Your task to perform on an android device: open a bookmark in the chrome app Image 0: 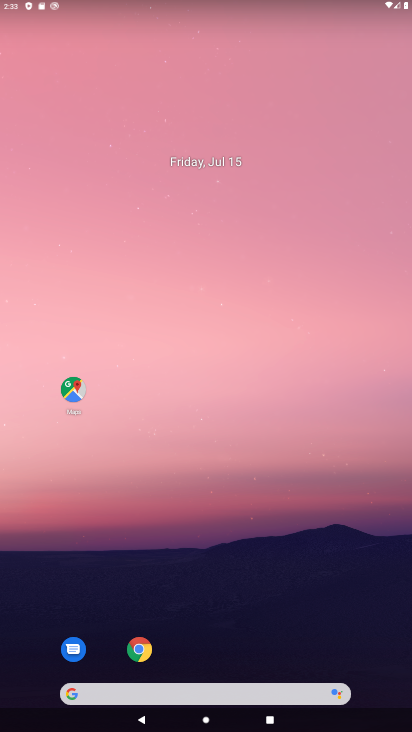
Step 0: drag from (198, 721) to (216, 317)
Your task to perform on an android device: open a bookmark in the chrome app Image 1: 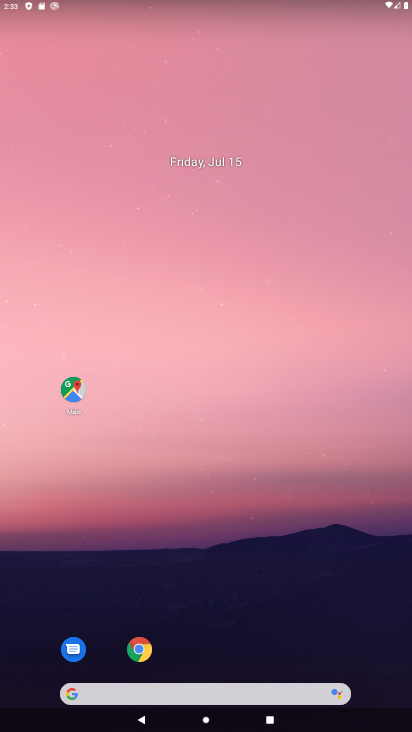
Step 1: click (140, 649)
Your task to perform on an android device: open a bookmark in the chrome app Image 2: 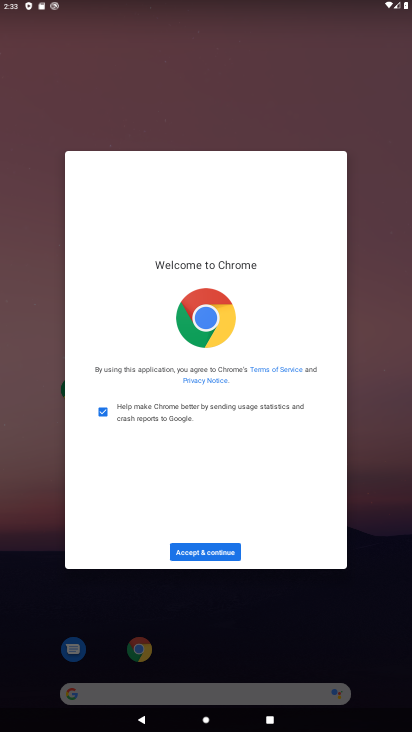
Step 2: click (207, 553)
Your task to perform on an android device: open a bookmark in the chrome app Image 3: 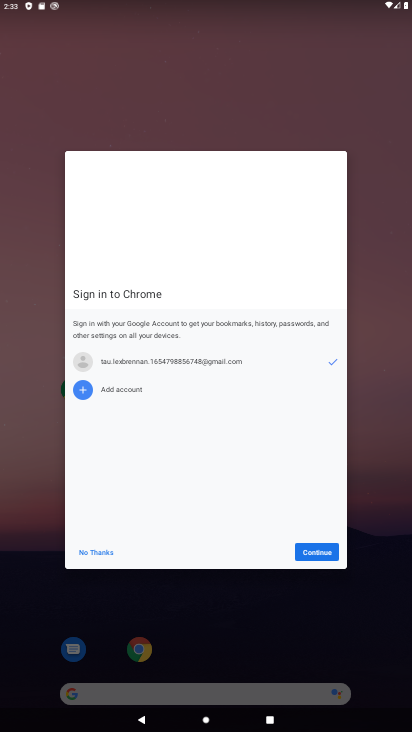
Step 3: click (319, 548)
Your task to perform on an android device: open a bookmark in the chrome app Image 4: 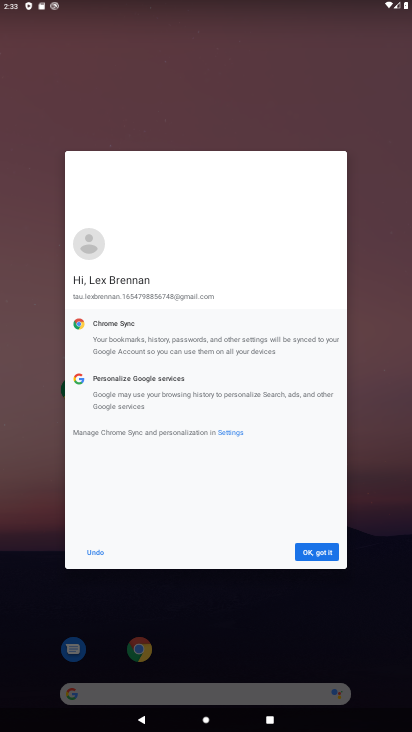
Step 4: click (323, 545)
Your task to perform on an android device: open a bookmark in the chrome app Image 5: 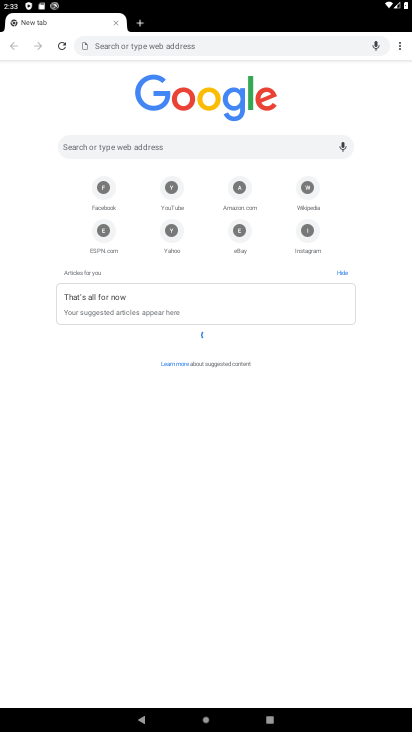
Step 5: click (402, 52)
Your task to perform on an android device: open a bookmark in the chrome app Image 6: 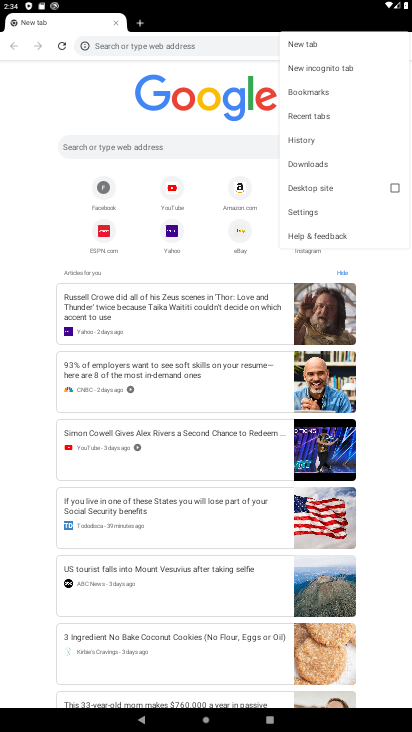
Step 6: click (315, 89)
Your task to perform on an android device: open a bookmark in the chrome app Image 7: 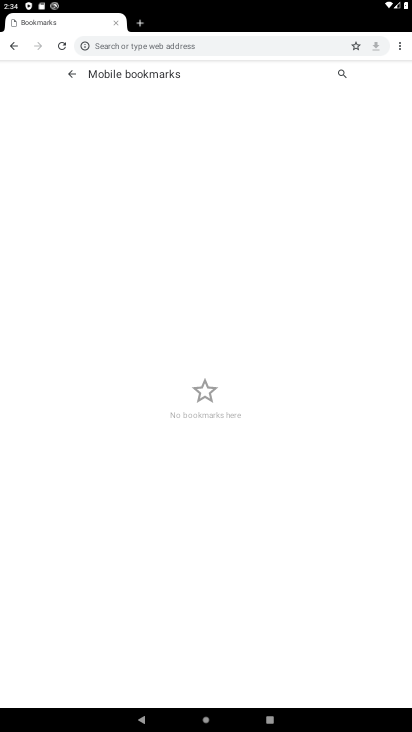
Step 7: task complete